Your task to perform on an android device: Show me productivity apps on the Play Store Image 0: 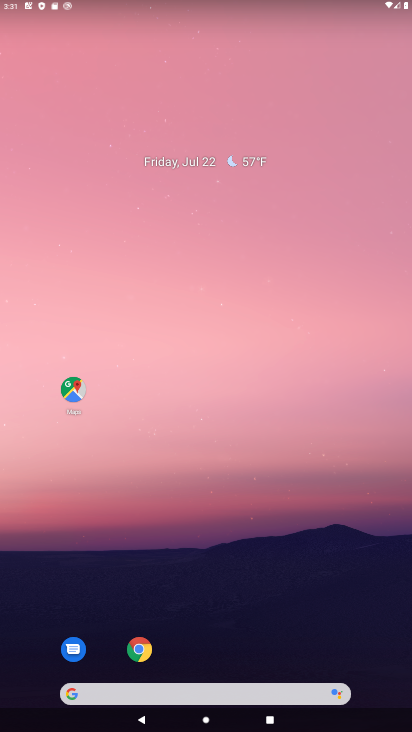
Step 0: drag from (38, 662) to (338, 28)
Your task to perform on an android device: Show me productivity apps on the Play Store Image 1: 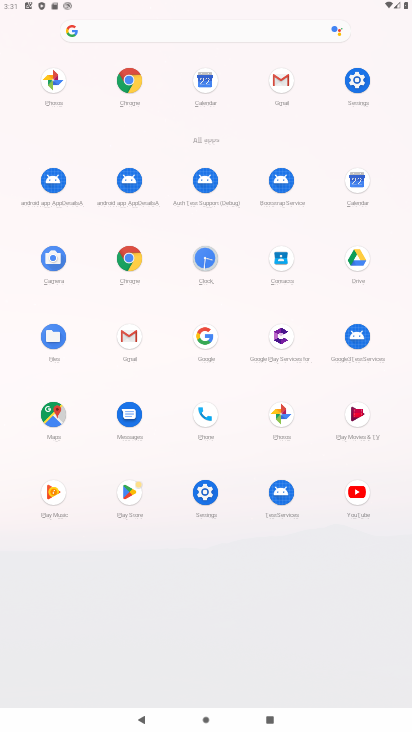
Step 1: click (121, 501)
Your task to perform on an android device: Show me productivity apps on the Play Store Image 2: 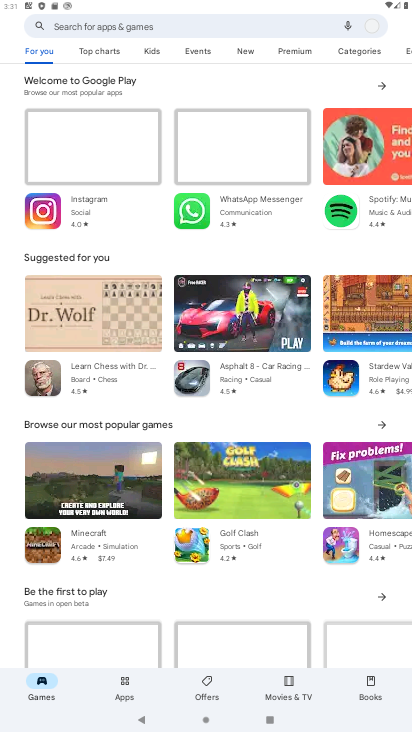
Step 2: click (88, 23)
Your task to perform on an android device: Show me productivity apps on the Play Store Image 3: 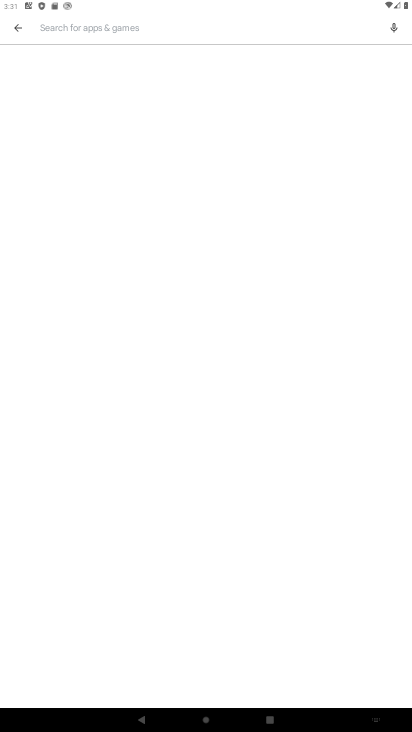
Step 3: type " productivity apps"
Your task to perform on an android device: Show me productivity apps on the Play Store Image 4: 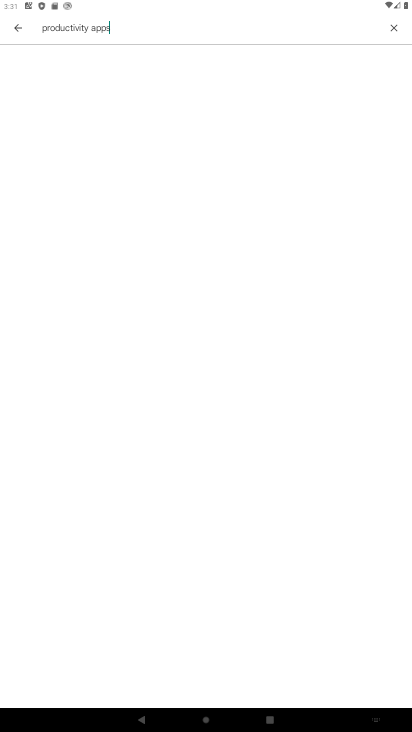
Step 4: type ""
Your task to perform on an android device: Show me productivity apps on the Play Store Image 5: 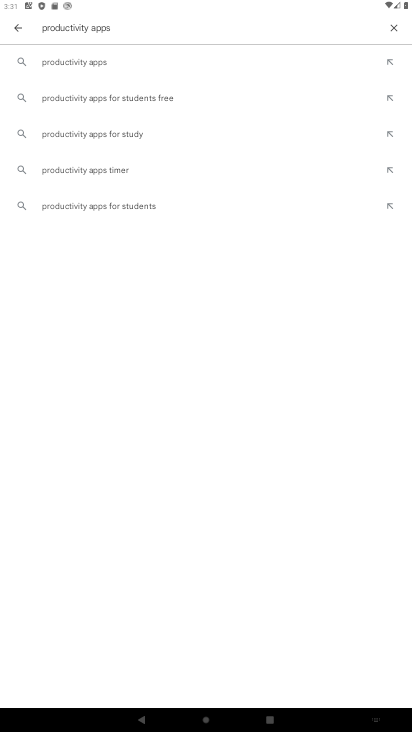
Step 5: type ""
Your task to perform on an android device: Show me productivity apps on the Play Store Image 6: 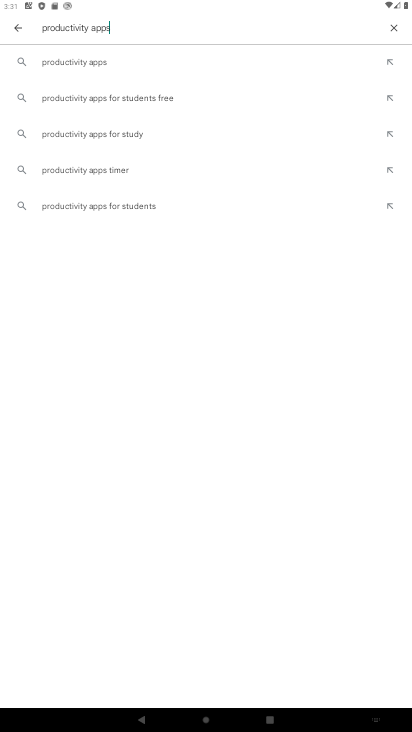
Step 6: type ""
Your task to perform on an android device: Show me productivity apps on the Play Store Image 7: 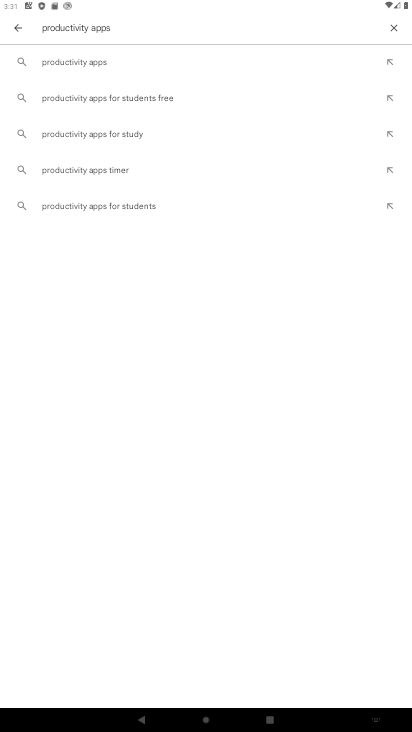
Step 7: task complete